Your task to perform on an android device: Open the map Image 0: 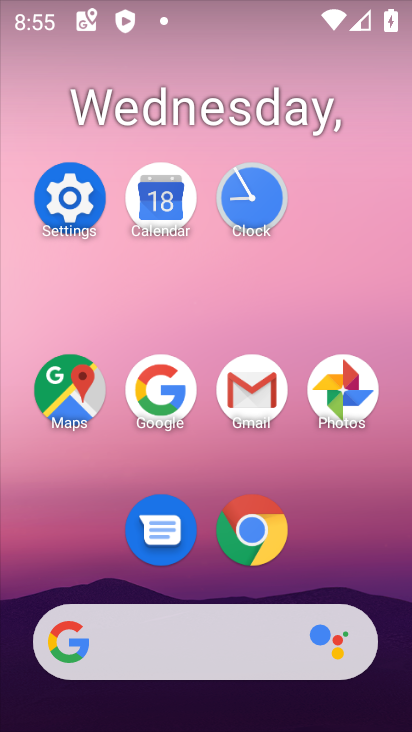
Step 0: click (53, 388)
Your task to perform on an android device: Open the map Image 1: 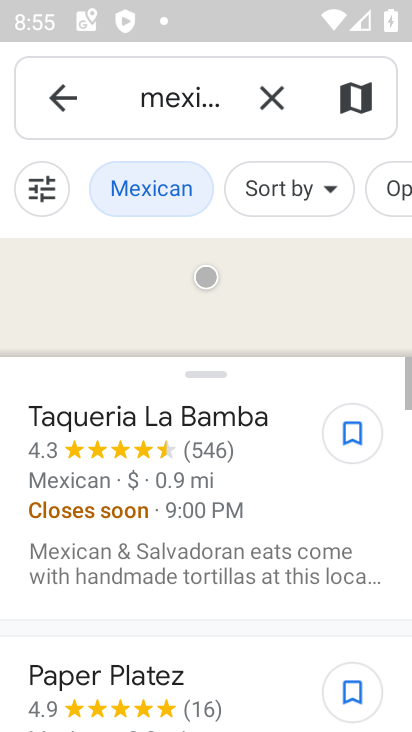
Step 1: task complete